Your task to perform on an android device: Open Maps and search for coffee Image 0: 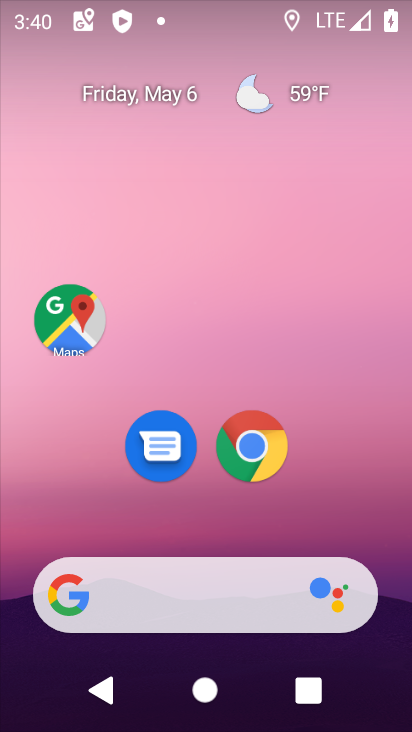
Step 0: drag from (303, 515) to (354, 107)
Your task to perform on an android device: Open Maps and search for coffee Image 1: 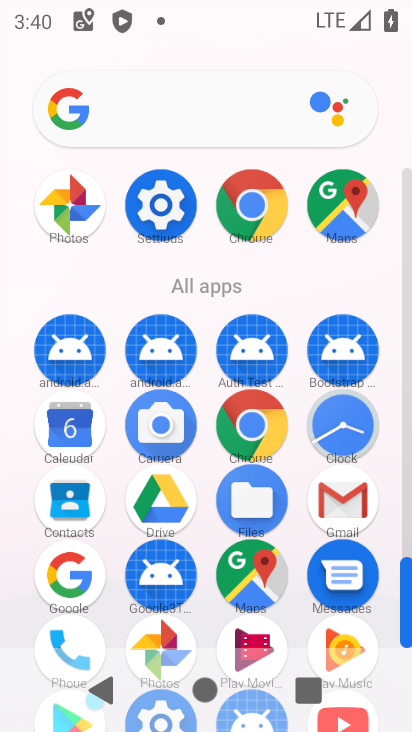
Step 1: click (338, 198)
Your task to perform on an android device: Open Maps and search for coffee Image 2: 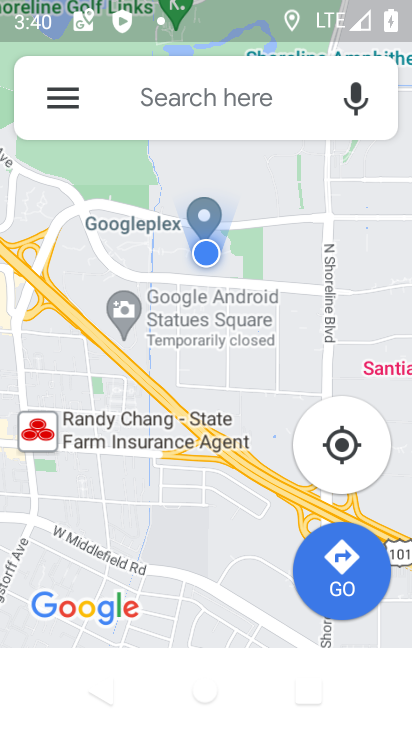
Step 2: click (189, 98)
Your task to perform on an android device: Open Maps and search for coffee Image 3: 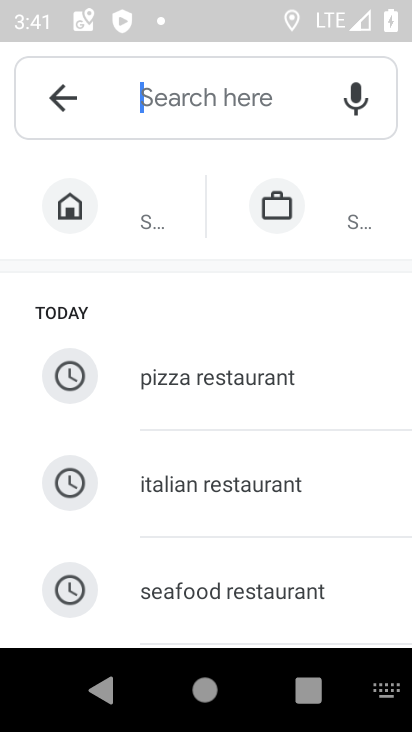
Step 3: type "coffee"
Your task to perform on an android device: Open Maps and search for coffee Image 4: 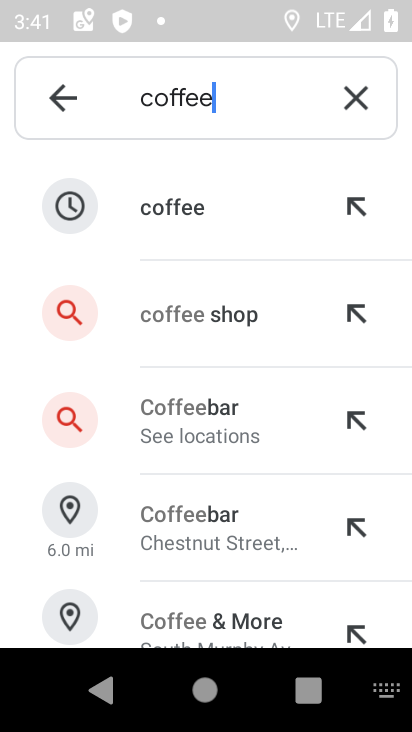
Step 4: click (190, 215)
Your task to perform on an android device: Open Maps and search for coffee Image 5: 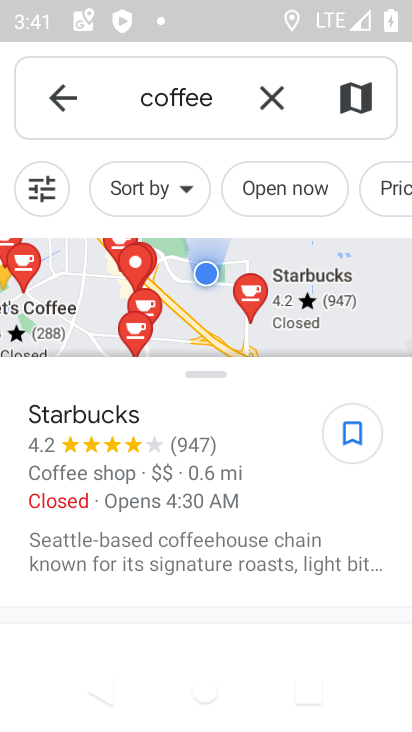
Step 5: task complete